Your task to perform on an android device: open a bookmark in the chrome app Image 0: 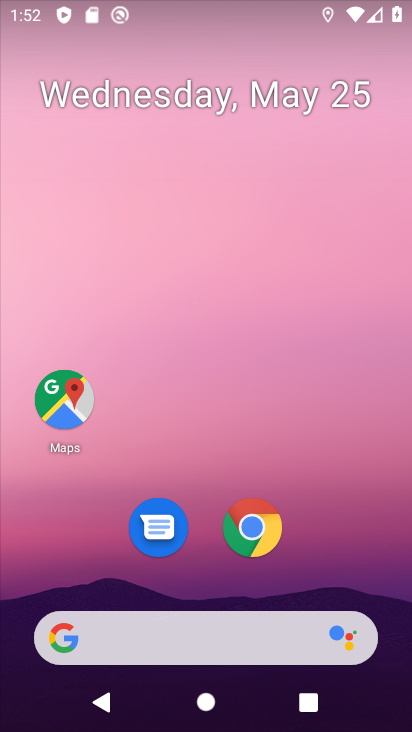
Step 0: click (255, 521)
Your task to perform on an android device: open a bookmark in the chrome app Image 1: 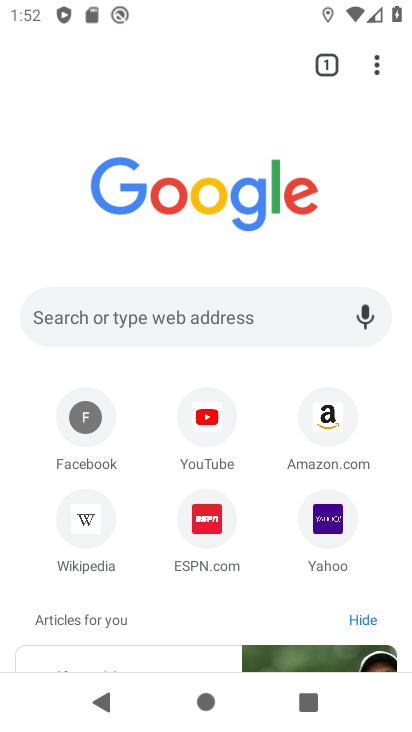
Step 1: task complete